Your task to perform on an android device: Open Wikipedia Image 0: 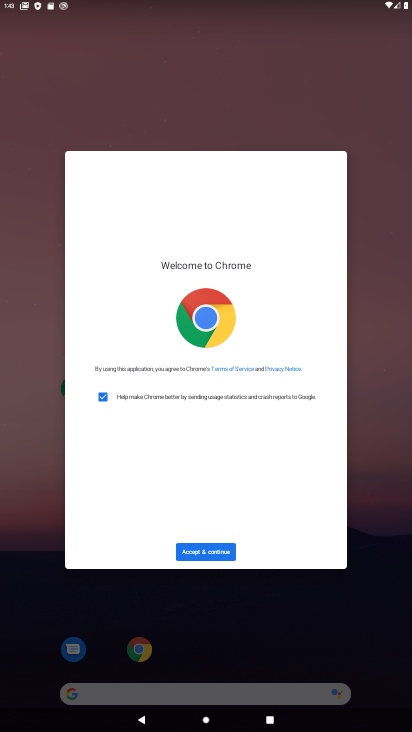
Step 0: press home button
Your task to perform on an android device: Open Wikipedia Image 1: 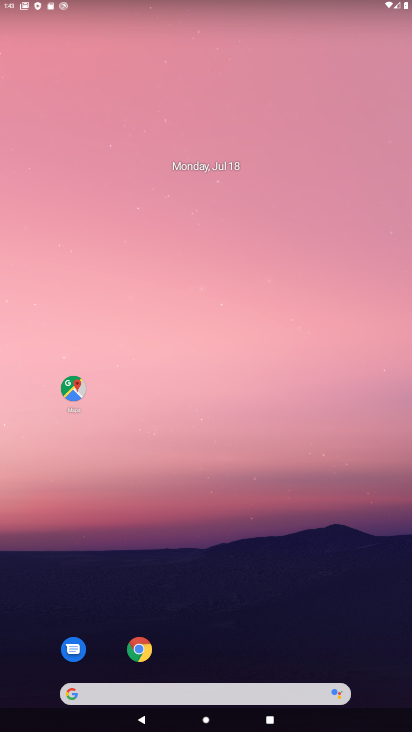
Step 1: drag from (323, 649) to (307, 112)
Your task to perform on an android device: Open Wikipedia Image 2: 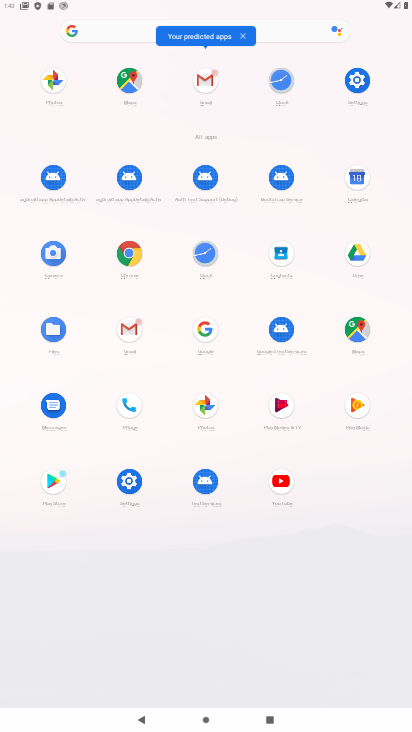
Step 2: click (137, 248)
Your task to perform on an android device: Open Wikipedia Image 3: 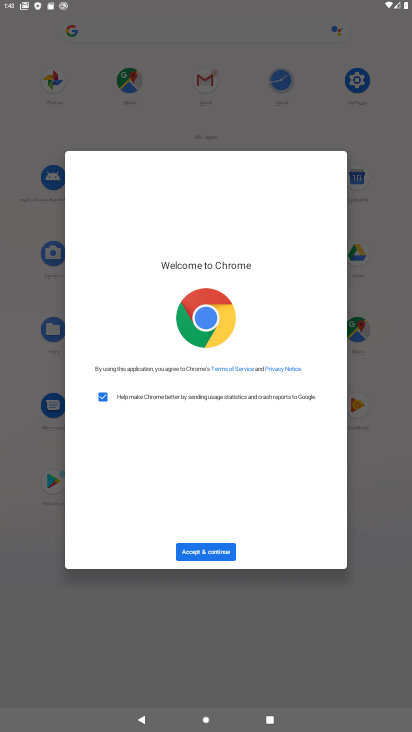
Step 3: click (220, 545)
Your task to perform on an android device: Open Wikipedia Image 4: 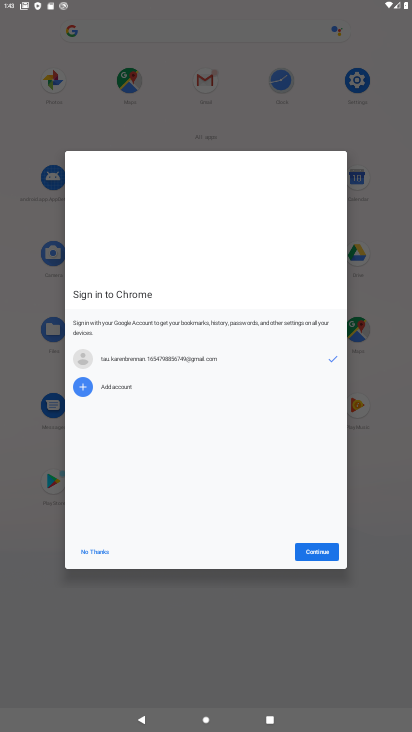
Step 4: click (90, 551)
Your task to perform on an android device: Open Wikipedia Image 5: 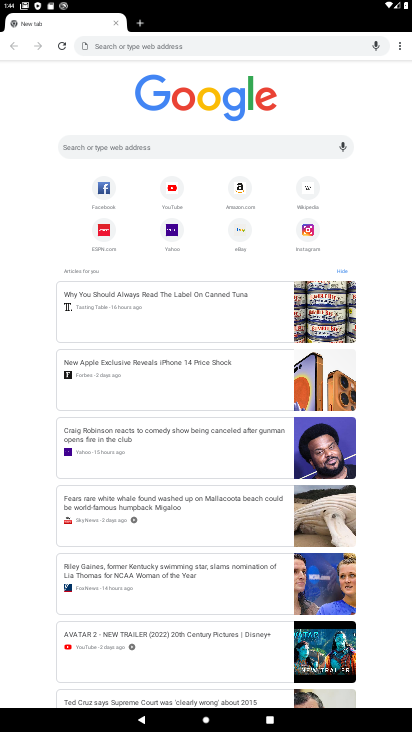
Step 5: click (305, 193)
Your task to perform on an android device: Open Wikipedia Image 6: 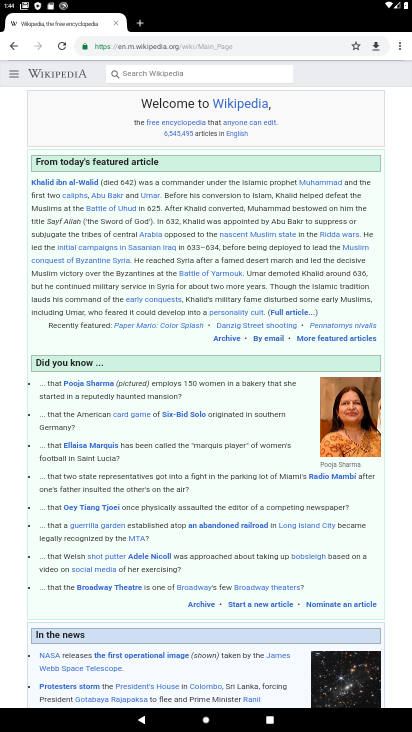
Step 6: task complete